Your task to perform on an android device: Search for asus zenbook on bestbuy, select the first entry, and add it to the cart. Image 0: 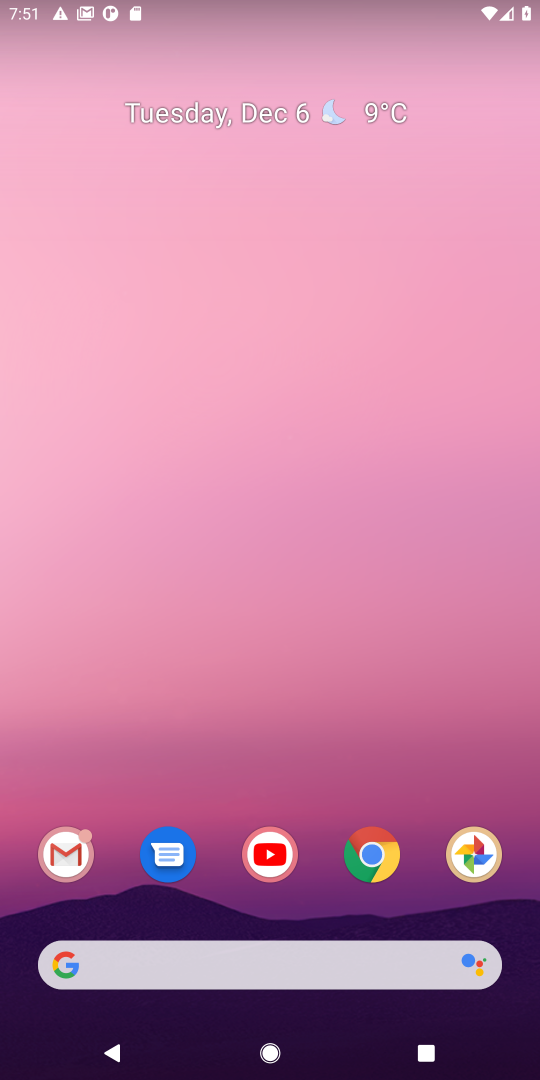
Step 0: click (377, 854)
Your task to perform on an android device: Search for asus zenbook on bestbuy, select the first entry, and add it to the cart. Image 1: 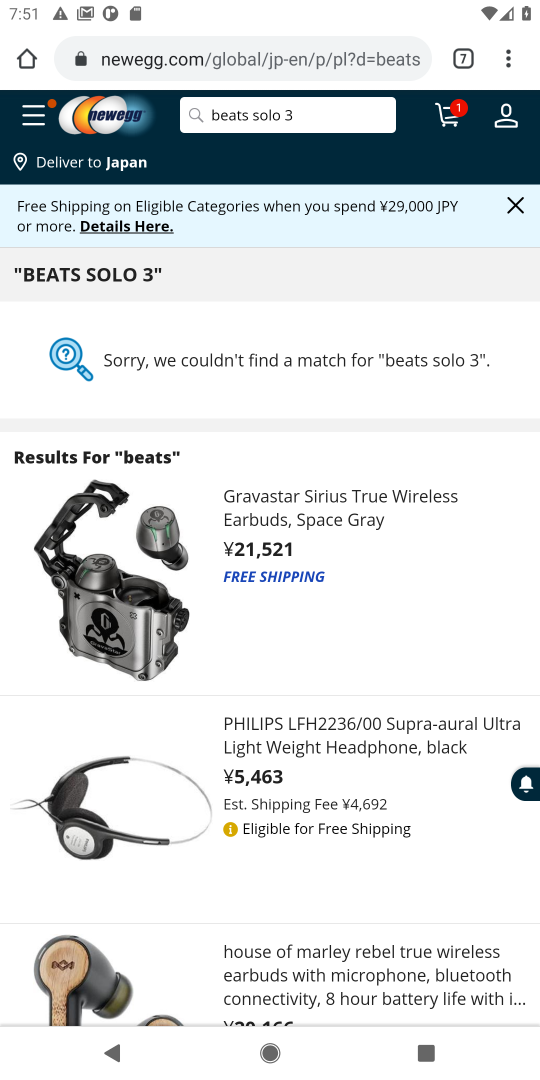
Step 1: click (475, 67)
Your task to perform on an android device: Search for asus zenbook on bestbuy, select the first entry, and add it to the cart. Image 2: 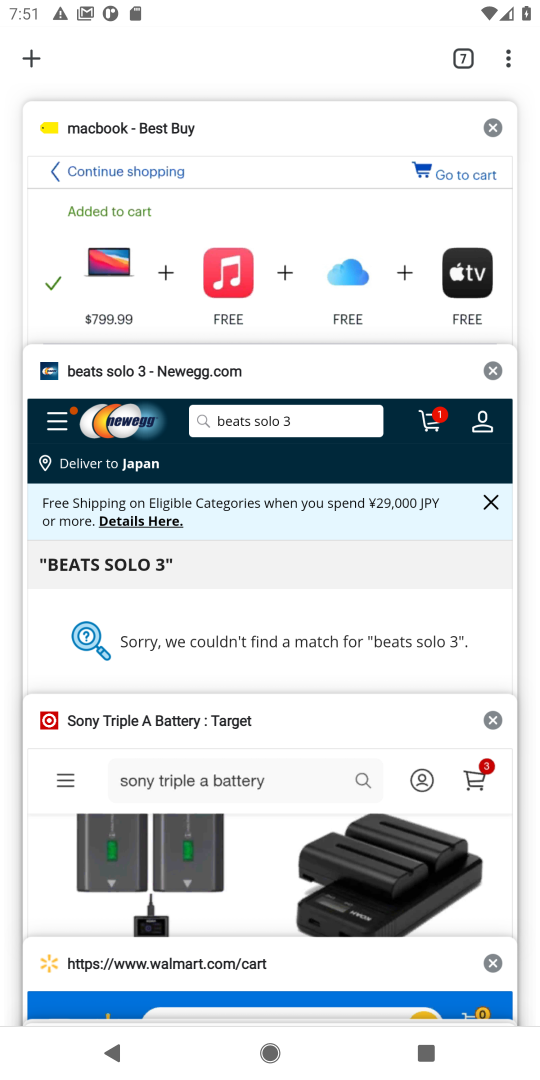
Step 2: click (234, 126)
Your task to perform on an android device: Search for asus zenbook on bestbuy, select the first entry, and add it to the cart. Image 3: 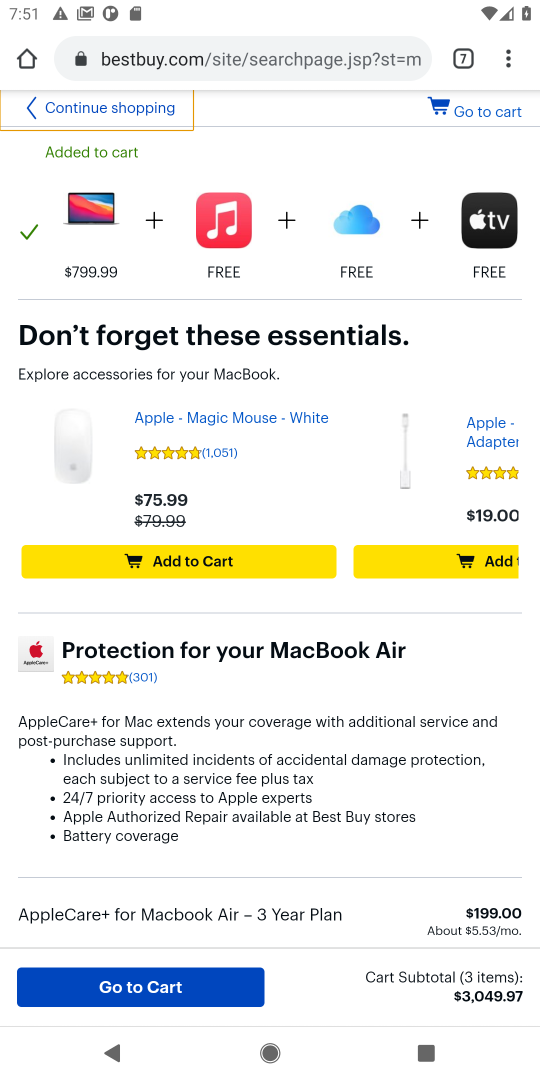
Step 3: click (131, 112)
Your task to perform on an android device: Search for asus zenbook on bestbuy, select the first entry, and add it to the cart. Image 4: 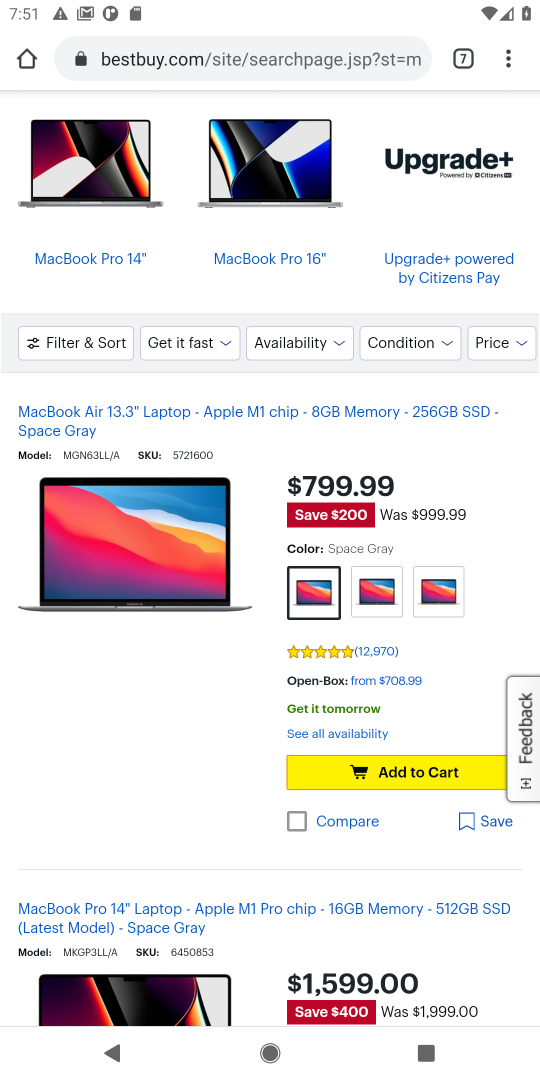
Step 4: drag from (362, 139) to (337, 650)
Your task to perform on an android device: Search for asus zenbook on bestbuy, select the first entry, and add it to the cart. Image 5: 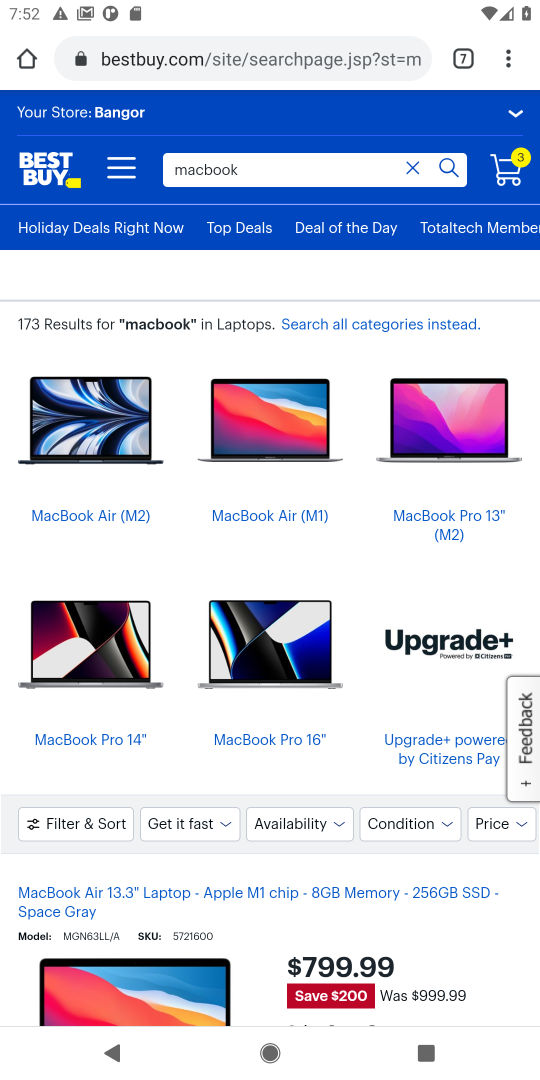
Step 5: click (410, 171)
Your task to perform on an android device: Search for asus zenbook on bestbuy, select the first entry, and add it to the cart. Image 6: 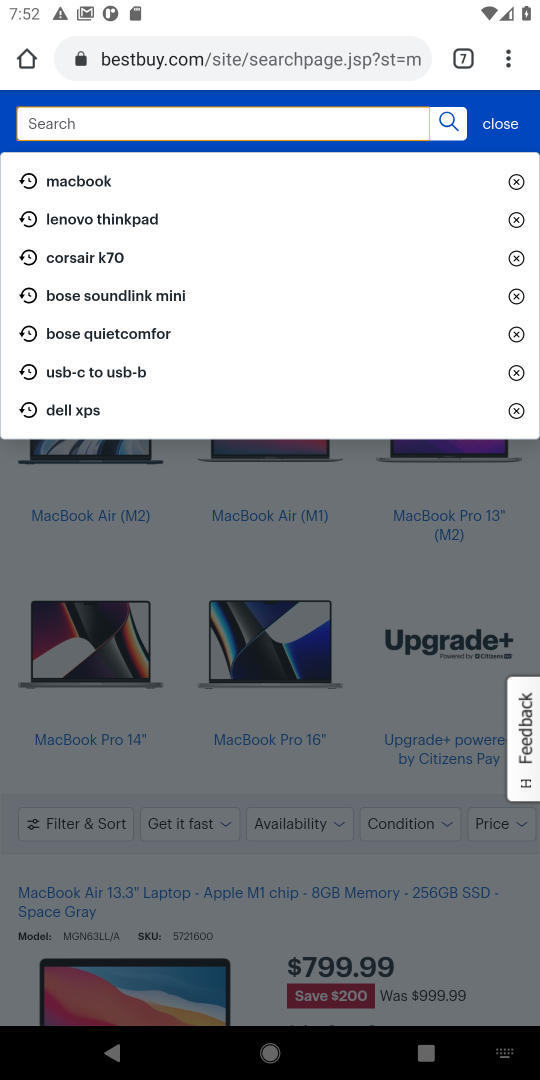
Step 6: type "asus zenbook"
Your task to perform on an android device: Search for asus zenbook on bestbuy, select the first entry, and add it to the cart. Image 7: 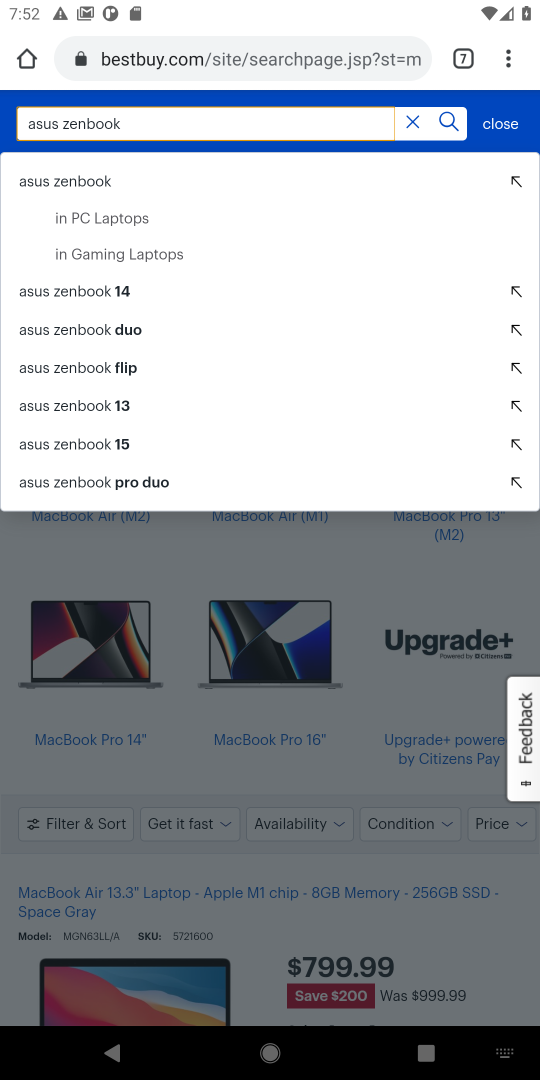
Step 7: click (451, 122)
Your task to perform on an android device: Search for asus zenbook on bestbuy, select the first entry, and add it to the cart. Image 8: 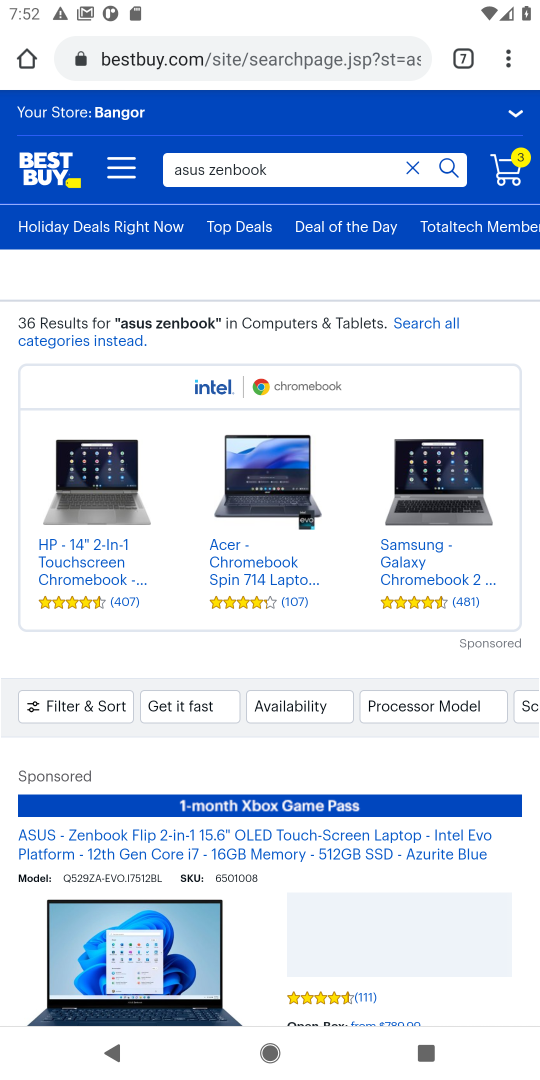
Step 8: click (343, 410)
Your task to perform on an android device: Search for asus zenbook on bestbuy, select the first entry, and add it to the cart. Image 9: 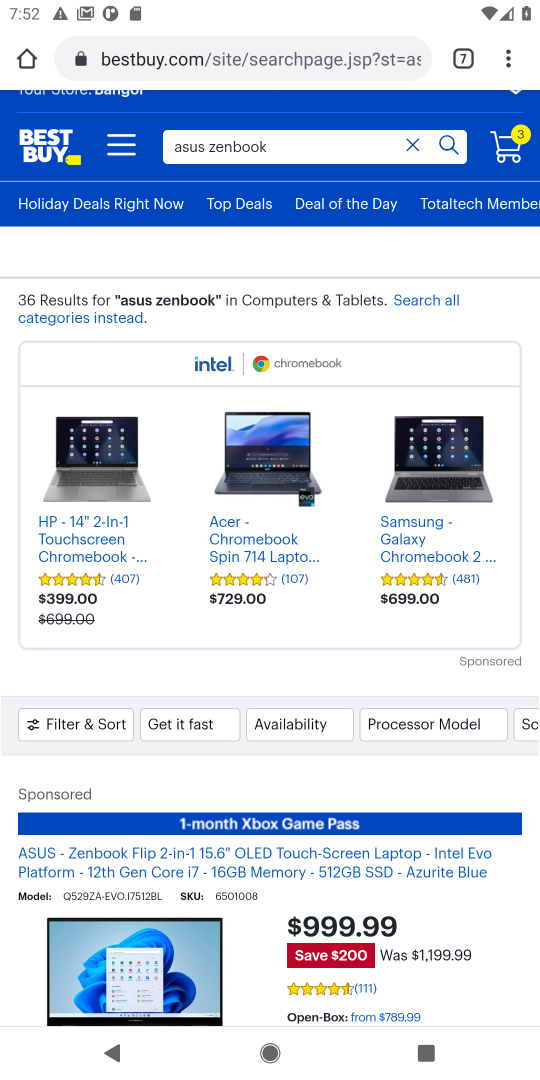
Step 9: drag from (423, 915) to (481, 485)
Your task to perform on an android device: Search for asus zenbook on bestbuy, select the first entry, and add it to the cart. Image 10: 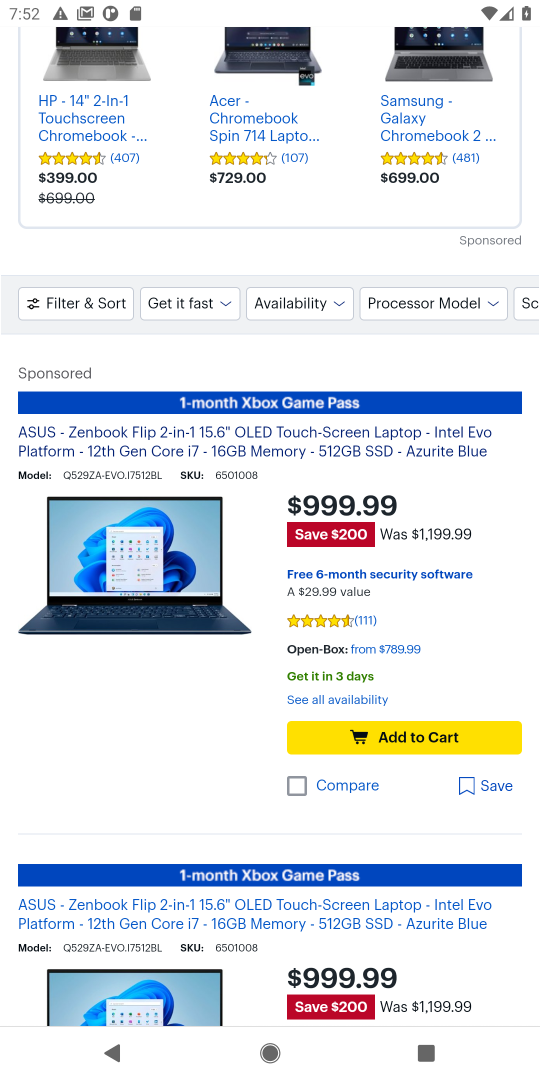
Step 10: click (431, 719)
Your task to perform on an android device: Search for asus zenbook on bestbuy, select the first entry, and add it to the cart. Image 11: 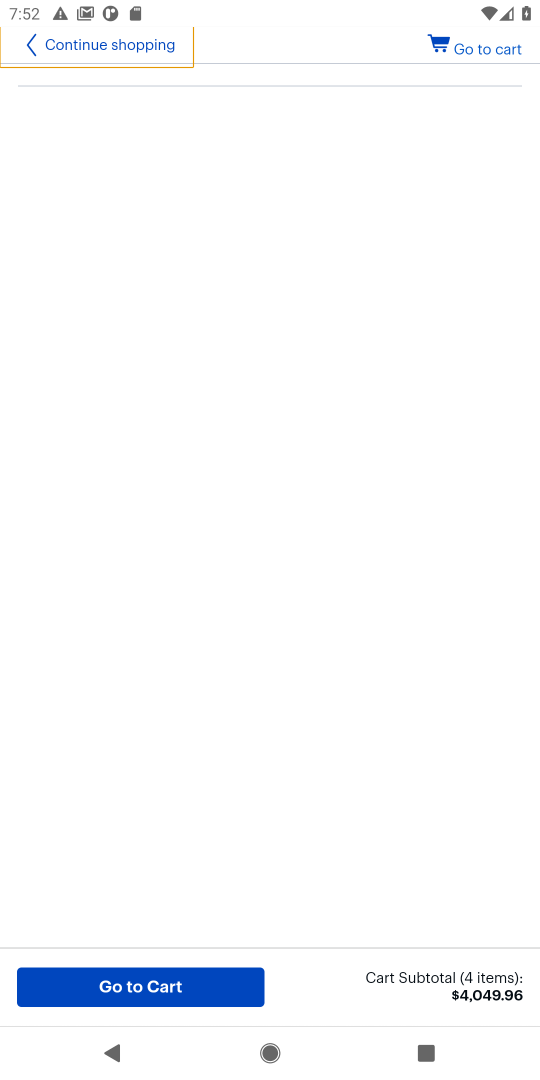
Step 11: task complete